Your task to perform on an android device: allow notifications from all sites in the chrome app Image 0: 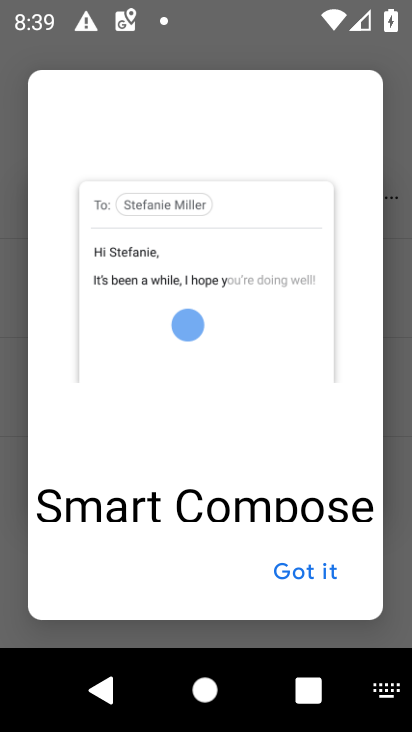
Step 0: press home button
Your task to perform on an android device: allow notifications from all sites in the chrome app Image 1: 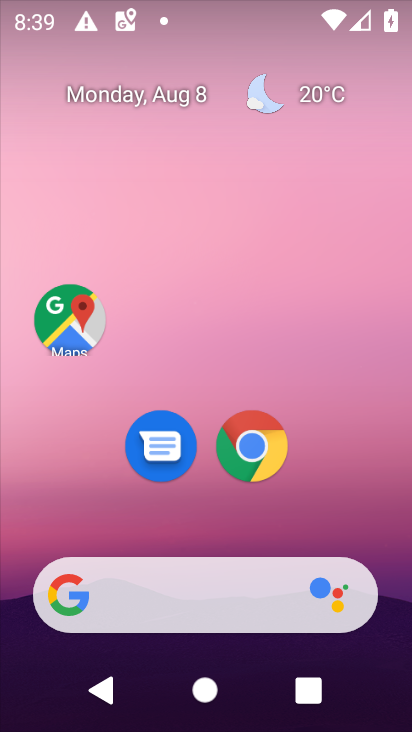
Step 1: click (255, 453)
Your task to perform on an android device: allow notifications from all sites in the chrome app Image 2: 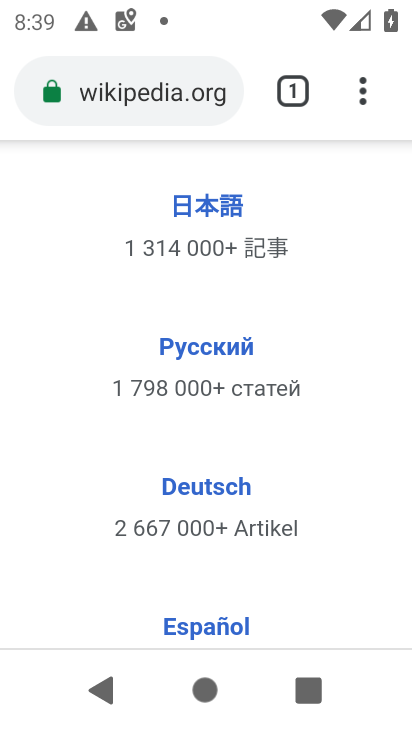
Step 2: click (358, 103)
Your task to perform on an android device: allow notifications from all sites in the chrome app Image 3: 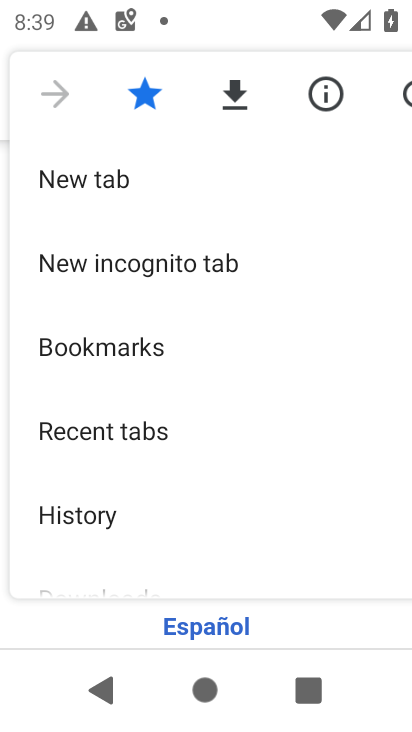
Step 3: drag from (225, 562) to (285, 158)
Your task to perform on an android device: allow notifications from all sites in the chrome app Image 4: 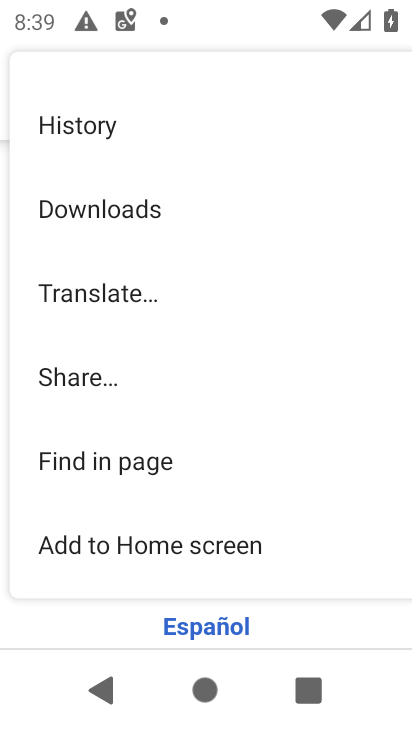
Step 4: drag from (301, 527) to (278, 203)
Your task to perform on an android device: allow notifications from all sites in the chrome app Image 5: 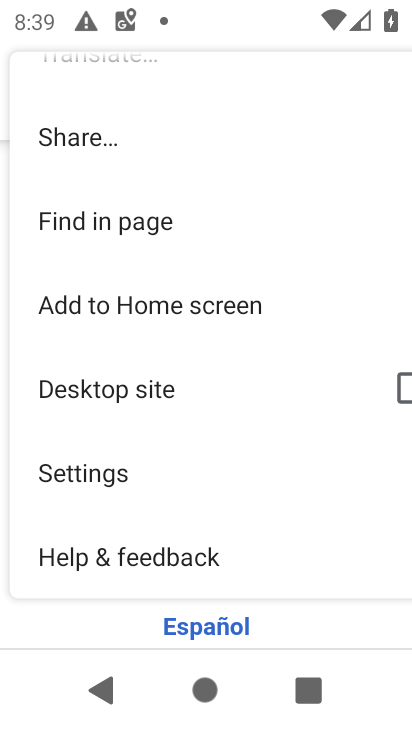
Step 5: click (59, 482)
Your task to perform on an android device: allow notifications from all sites in the chrome app Image 6: 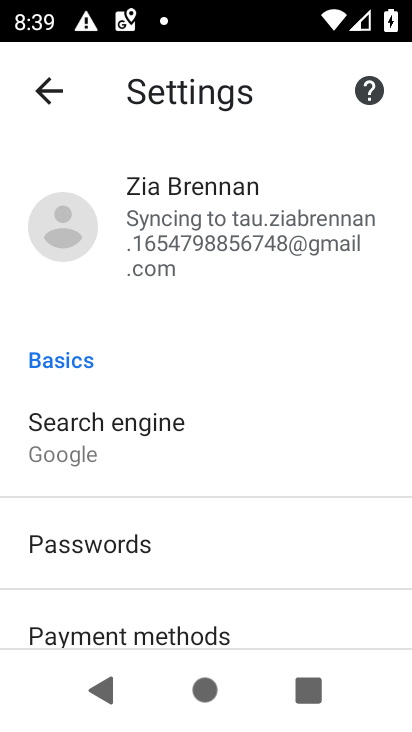
Step 6: drag from (242, 598) to (237, 129)
Your task to perform on an android device: allow notifications from all sites in the chrome app Image 7: 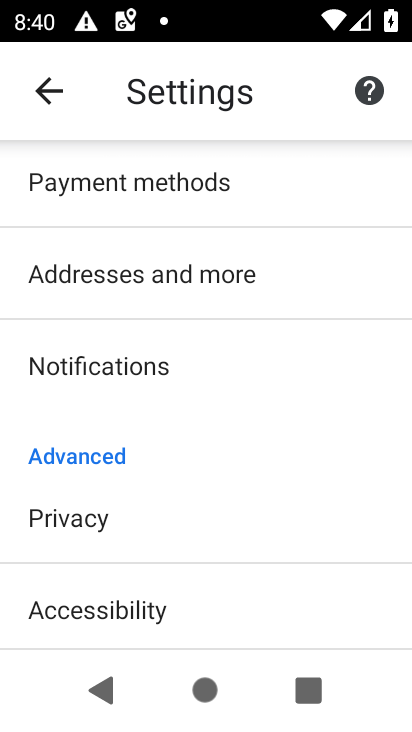
Step 7: drag from (256, 608) to (247, 313)
Your task to perform on an android device: allow notifications from all sites in the chrome app Image 8: 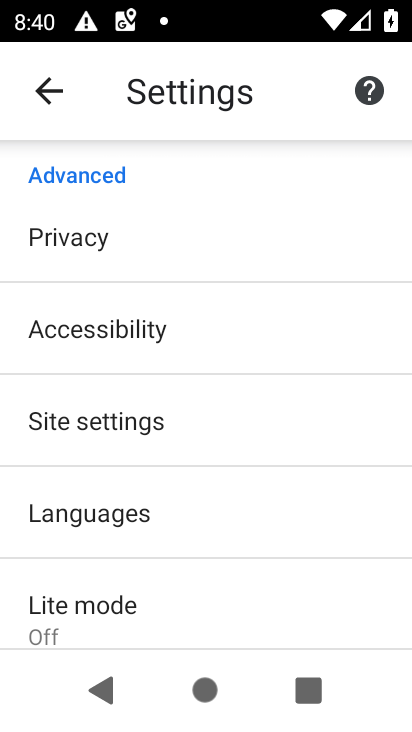
Step 8: click (118, 419)
Your task to perform on an android device: allow notifications from all sites in the chrome app Image 9: 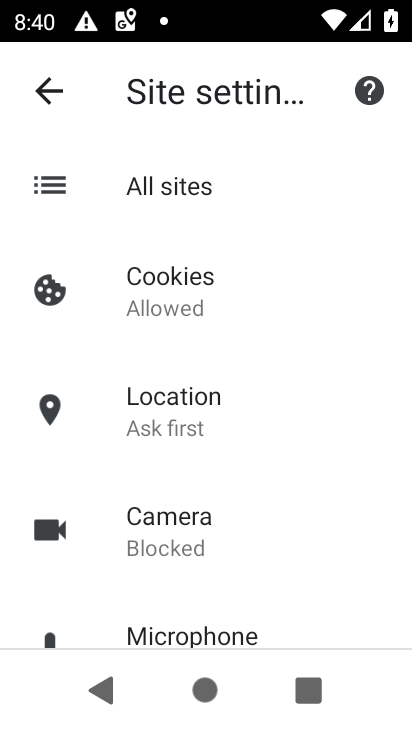
Step 9: drag from (277, 564) to (299, 199)
Your task to perform on an android device: allow notifications from all sites in the chrome app Image 10: 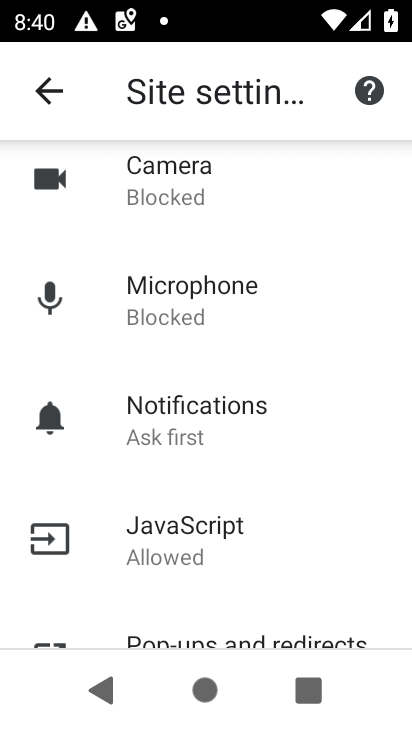
Step 10: click (179, 435)
Your task to perform on an android device: allow notifications from all sites in the chrome app Image 11: 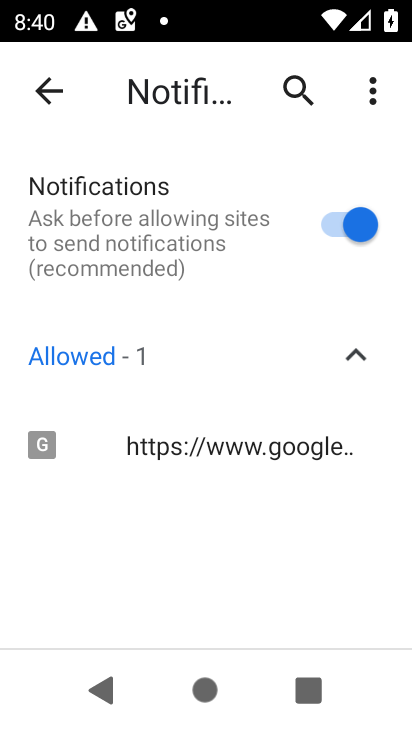
Step 11: task complete